Your task to perform on an android device: turn on wifi Image 0: 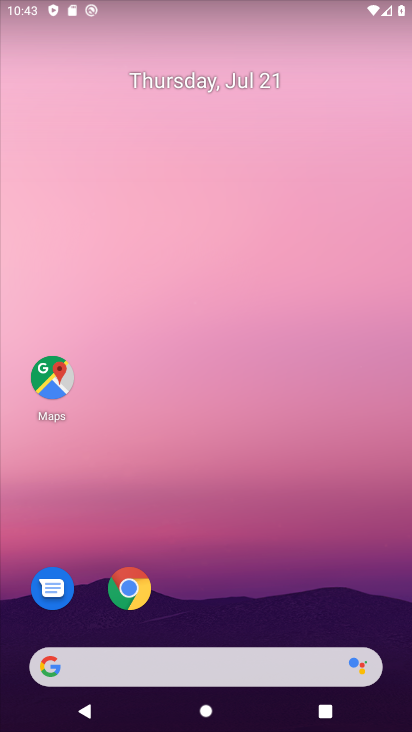
Step 0: drag from (196, 395) to (89, 0)
Your task to perform on an android device: turn on wifi Image 1: 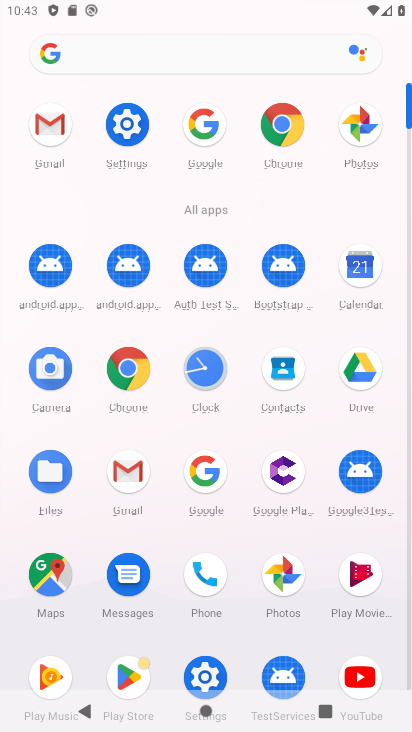
Step 1: click (130, 135)
Your task to perform on an android device: turn on wifi Image 2: 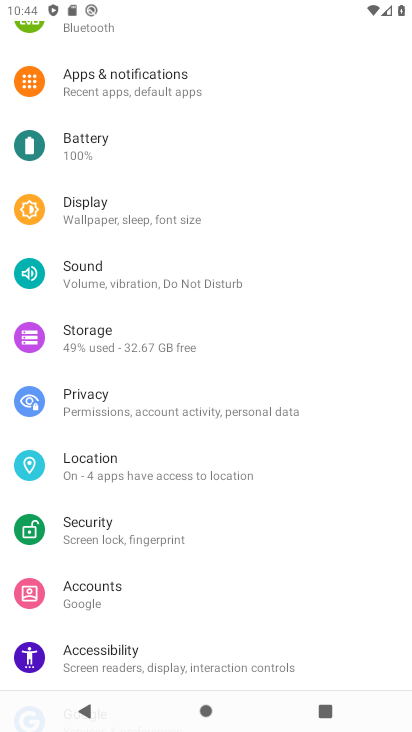
Step 2: drag from (161, 137) to (264, 597)
Your task to perform on an android device: turn on wifi Image 3: 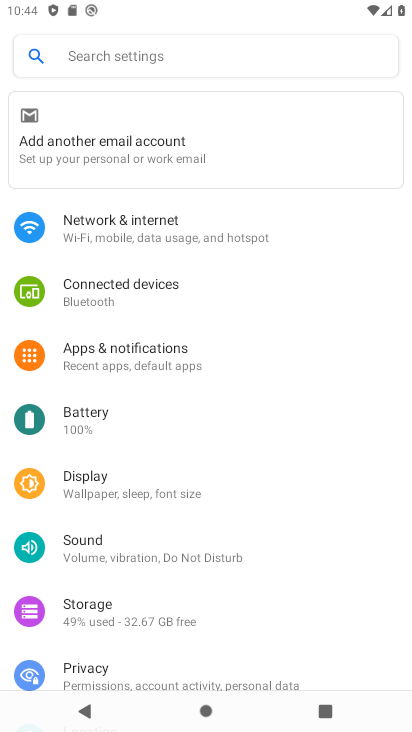
Step 3: click (172, 215)
Your task to perform on an android device: turn on wifi Image 4: 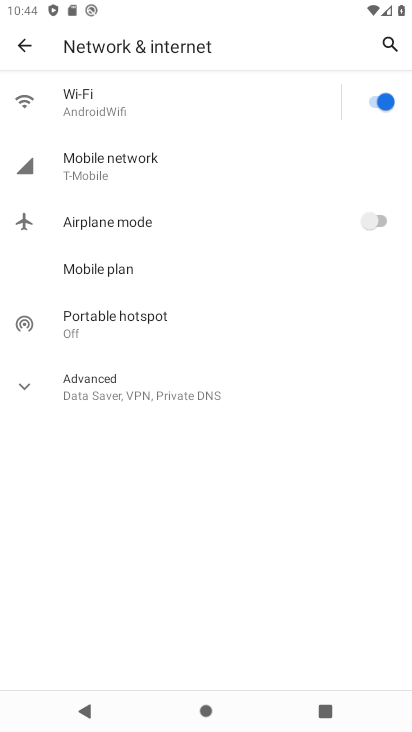
Step 4: task complete